Your task to perform on an android device: Search for seafood restaurants on Google Maps Image 0: 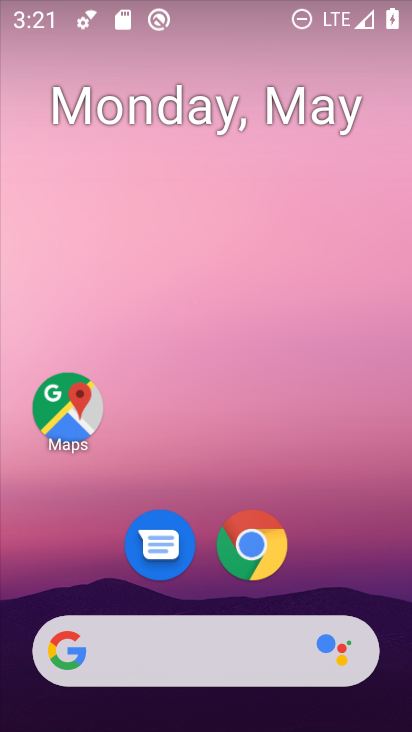
Step 0: click (69, 405)
Your task to perform on an android device: Search for seafood restaurants on Google Maps Image 1: 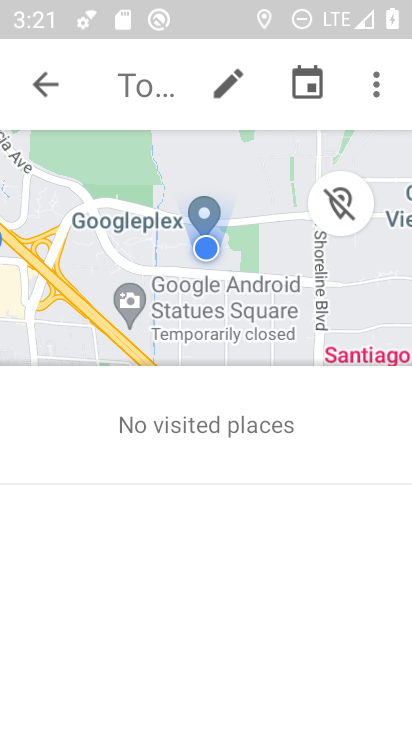
Step 1: press back button
Your task to perform on an android device: Search for seafood restaurants on Google Maps Image 2: 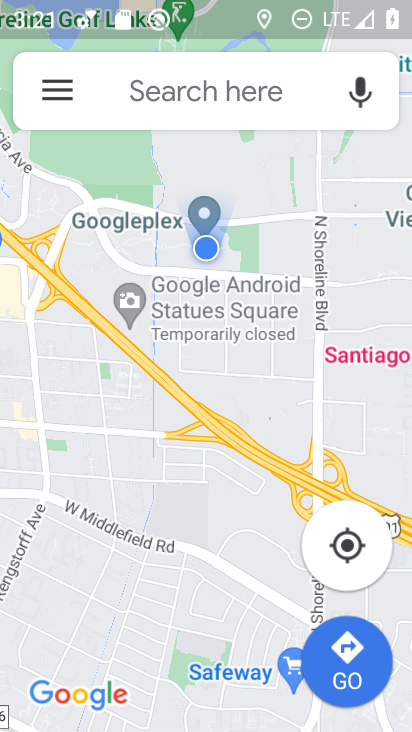
Step 2: click (236, 103)
Your task to perform on an android device: Search for seafood restaurants on Google Maps Image 3: 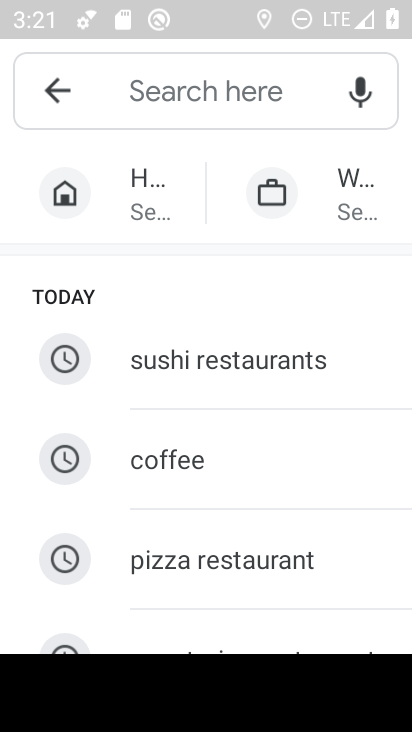
Step 3: drag from (256, 606) to (223, 308)
Your task to perform on an android device: Search for seafood restaurants on Google Maps Image 4: 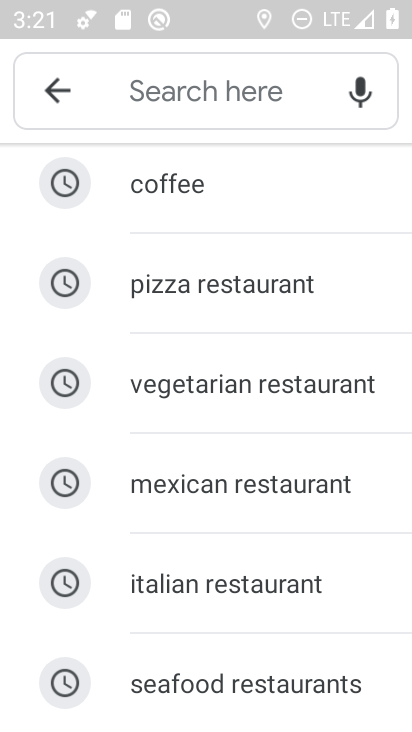
Step 4: click (217, 682)
Your task to perform on an android device: Search for seafood restaurants on Google Maps Image 5: 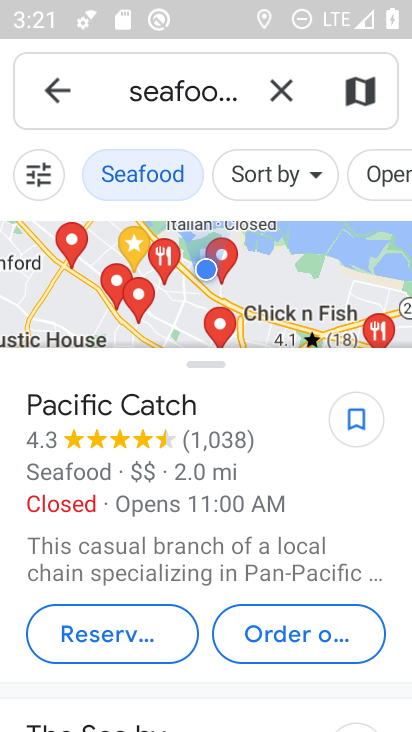
Step 5: task complete